Your task to perform on an android device: What's the weather today? Image 0: 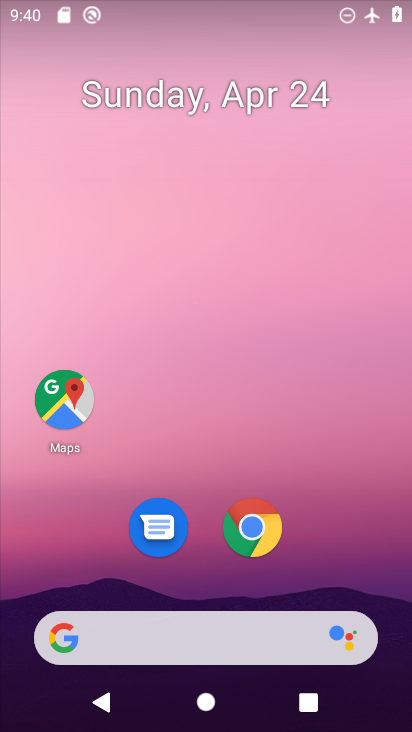
Step 0: click (238, 645)
Your task to perform on an android device: What's the weather today? Image 1: 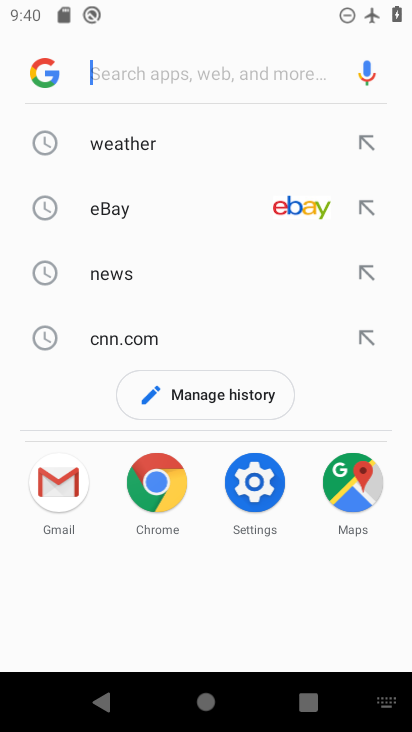
Step 1: click (147, 157)
Your task to perform on an android device: What's the weather today? Image 2: 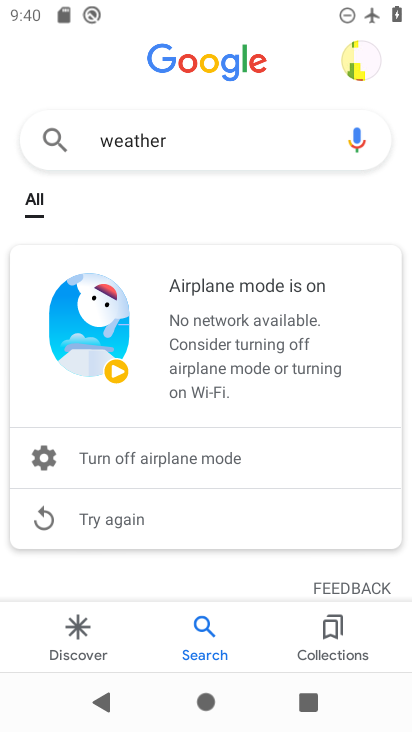
Step 2: task complete